Your task to perform on an android device: Go to ESPN.com Image 0: 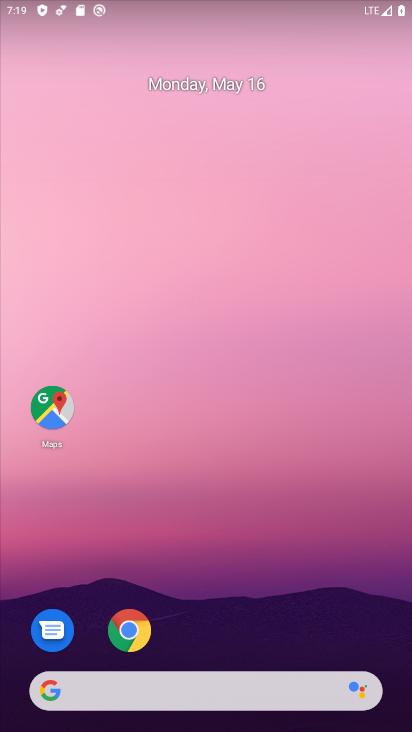
Step 0: click (126, 629)
Your task to perform on an android device: Go to ESPN.com Image 1: 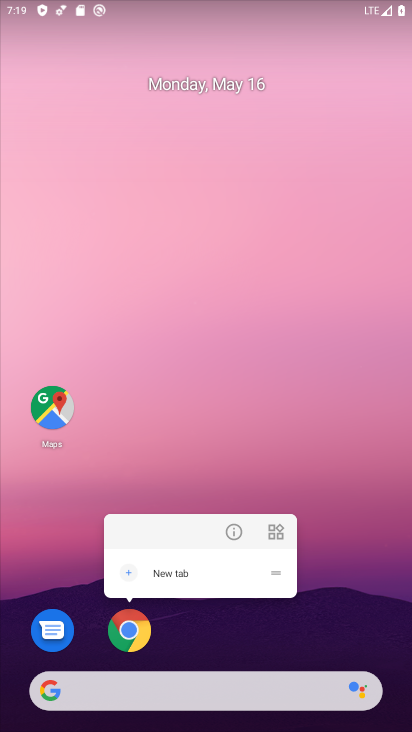
Step 1: click (130, 629)
Your task to perform on an android device: Go to ESPN.com Image 2: 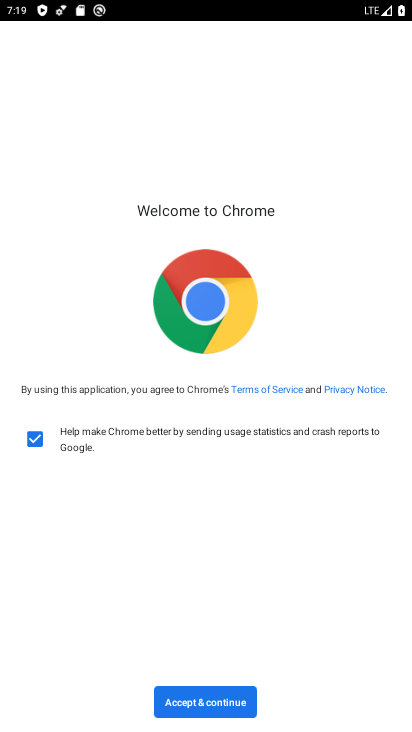
Step 2: click (186, 700)
Your task to perform on an android device: Go to ESPN.com Image 3: 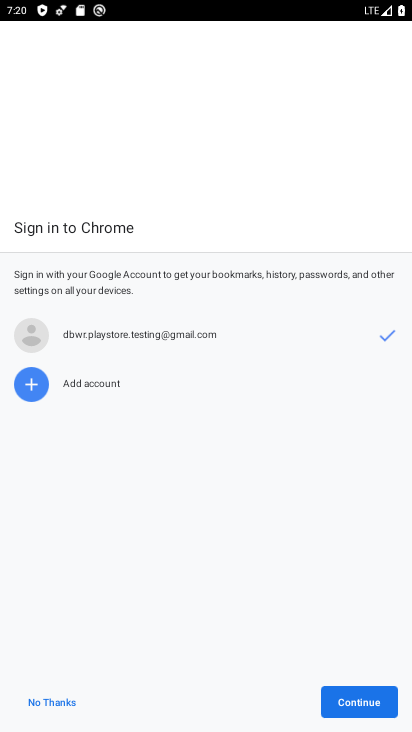
Step 3: click (350, 705)
Your task to perform on an android device: Go to ESPN.com Image 4: 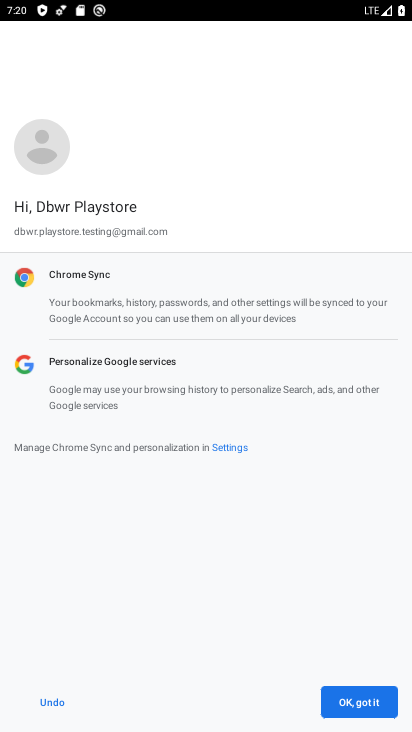
Step 4: click (350, 705)
Your task to perform on an android device: Go to ESPN.com Image 5: 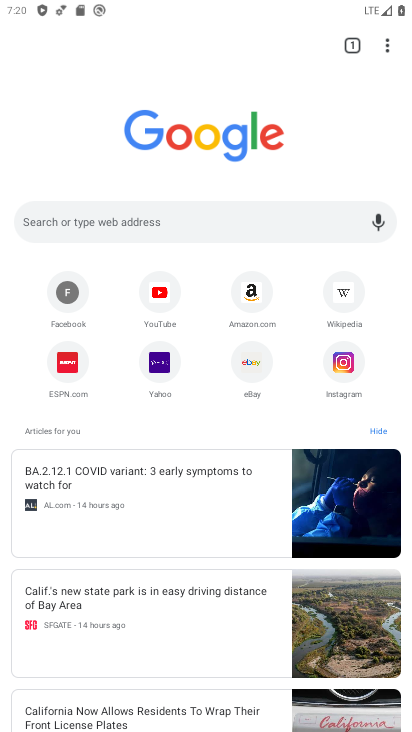
Step 5: click (202, 223)
Your task to perform on an android device: Go to ESPN.com Image 6: 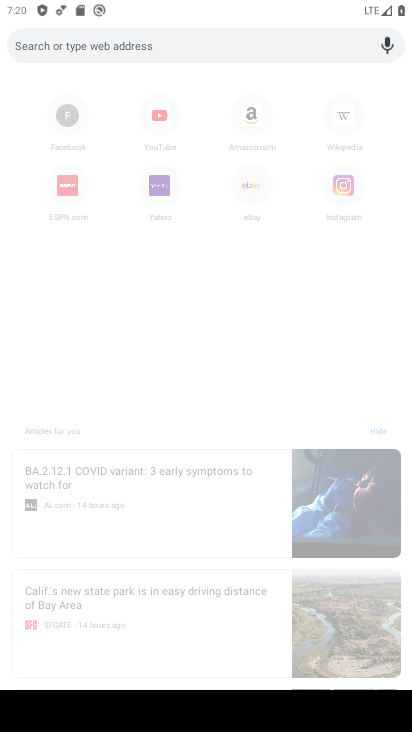
Step 6: type "ESPN.com"
Your task to perform on an android device: Go to ESPN.com Image 7: 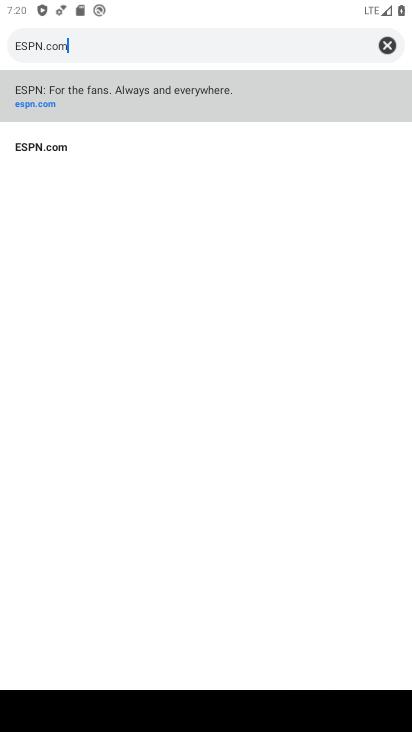
Step 7: click (51, 149)
Your task to perform on an android device: Go to ESPN.com Image 8: 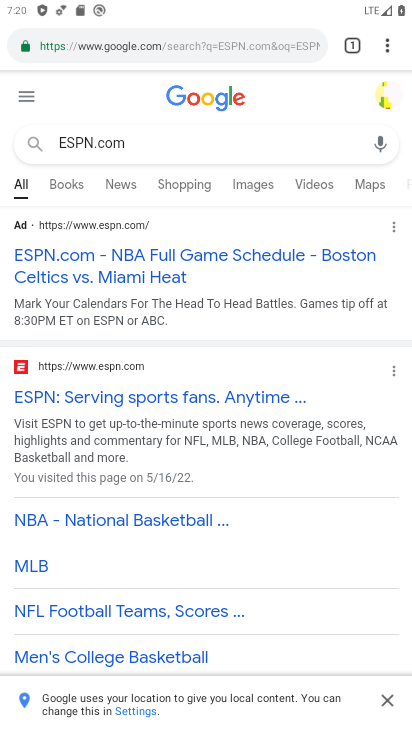
Step 8: click (80, 267)
Your task to perform on an android device: Go to ESPN.com Image 9: 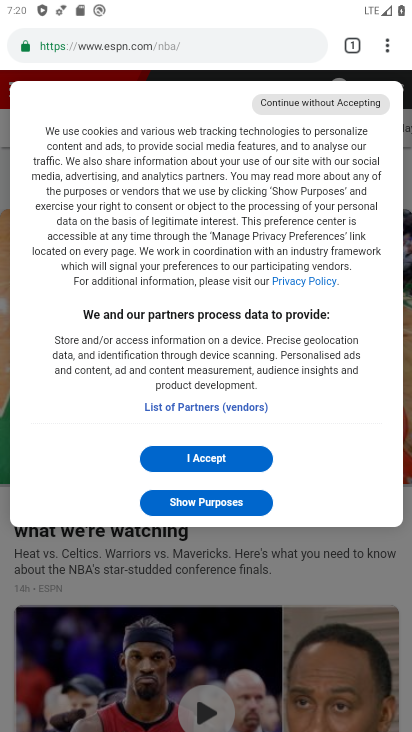
Step 9: click (207, 454)
Your task to perform on an android device: Go to ESPN.com Image 10: 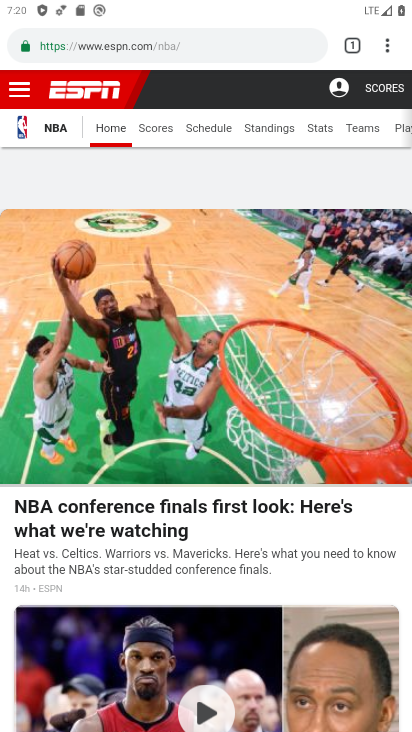
Step 10: task complete